Your task to perform on an android device: Show me the alarms in the clock app Image 0: 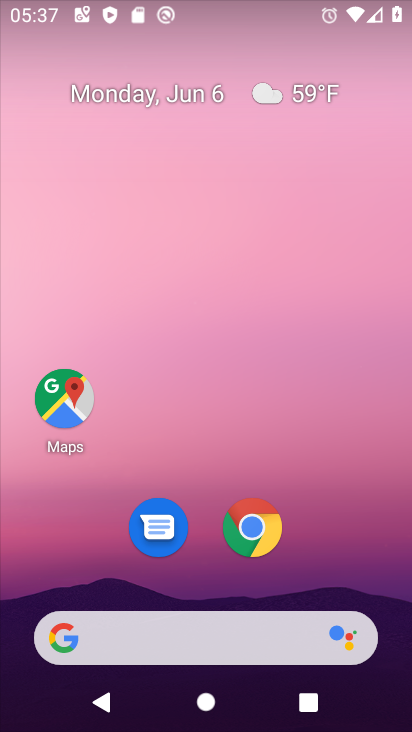
Step 0: drag from (390, 697) to (311, 171)
Your task to perform on an android device: Show me the alarms in the clock app Image 1: 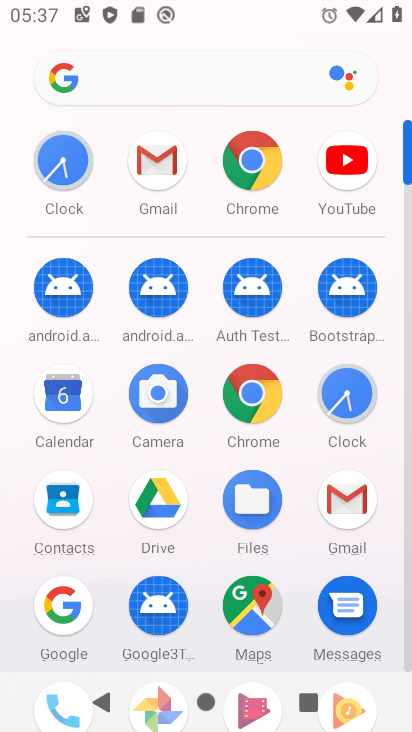
Step 1: click (330, 393)
Your task to perform on an android device: Show me the alarms in the clock app Image 2: 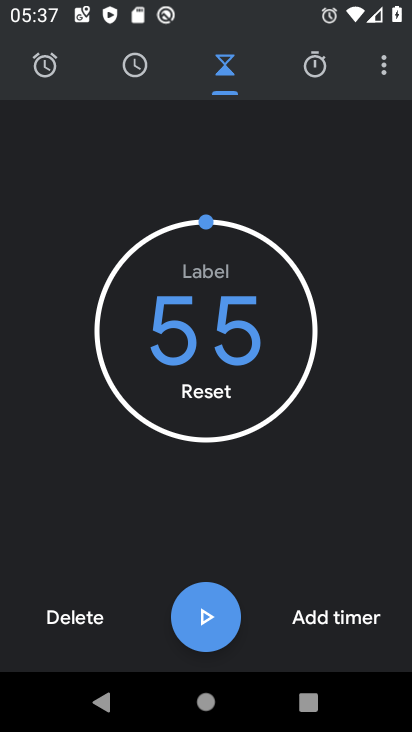
Step 2: click (52, 68)
Your task to perform on an android device: Show me the alarms in the clock app Image 3: 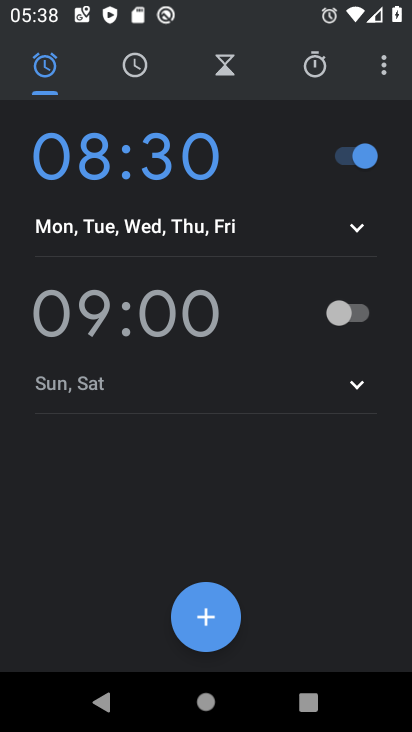
Step 3: task complete